Your task to perform on an android device: turn on showing notifications on the lock screen Image 0: 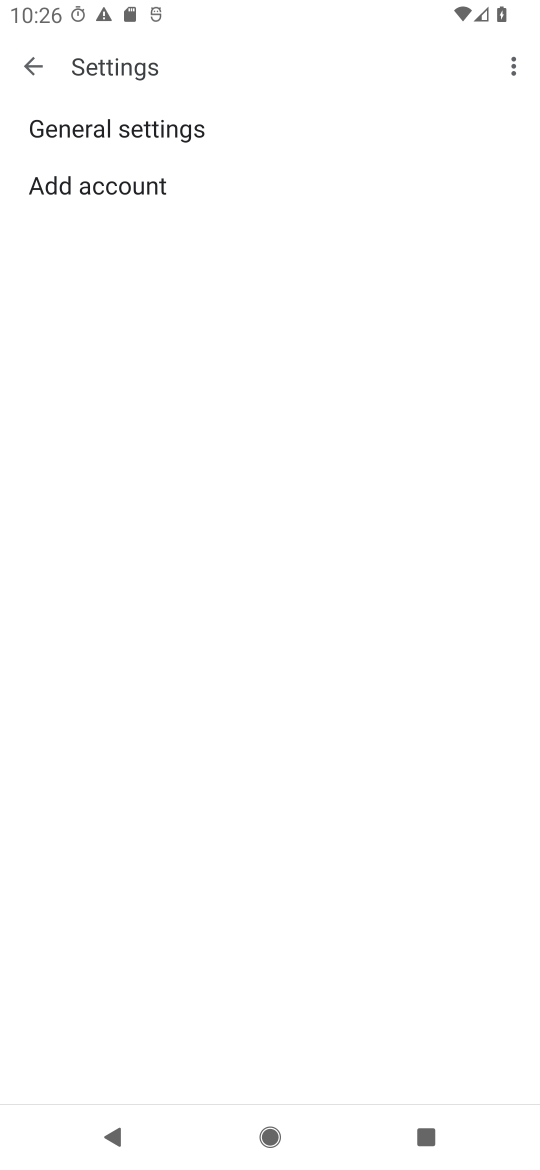
Step 0: press home button
Your task to perform on an android device: turn on showing notifications on the lock screen Image 1: 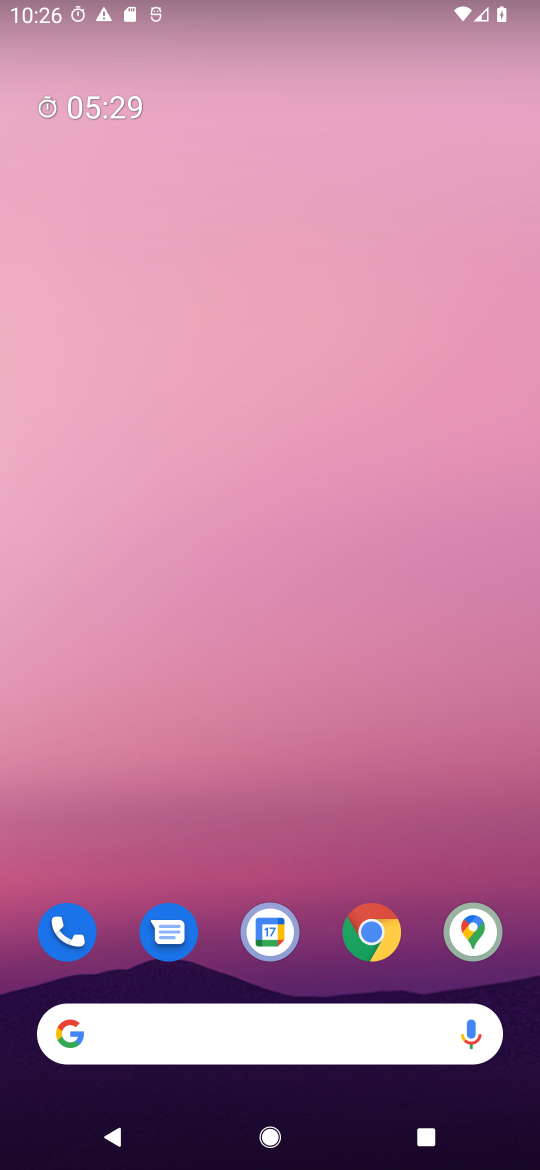
Step 1: drag from (295, 802) to (295, 94)
Your task to perform on an android device: turn on showing notifications on the lock screen Image 2: 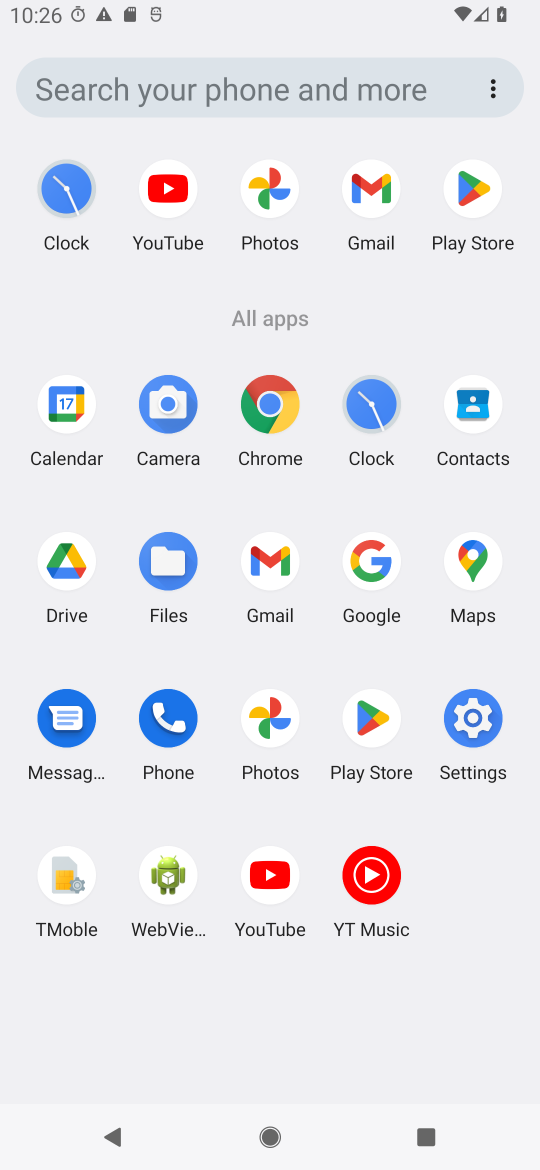
Step 2: click (469, 717)
Your task to perform on an android device: turn on showing notifications on the lock screen Image 3: 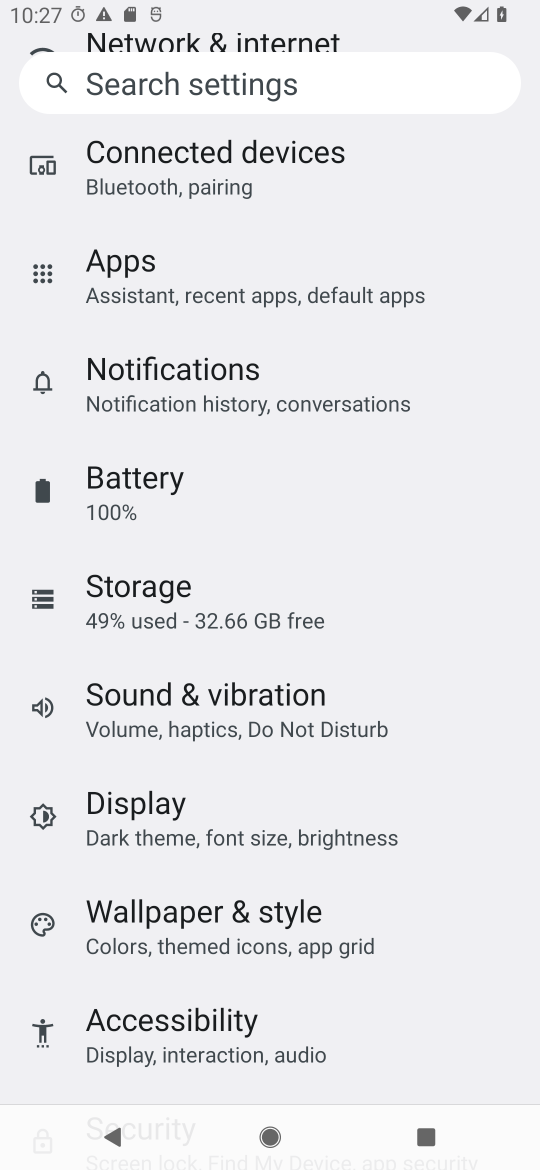
Step 3: drag from (238, 405) to (306, 893)
Your task to perform on an android device: turn on showing notifications on the lock screen Image 4: 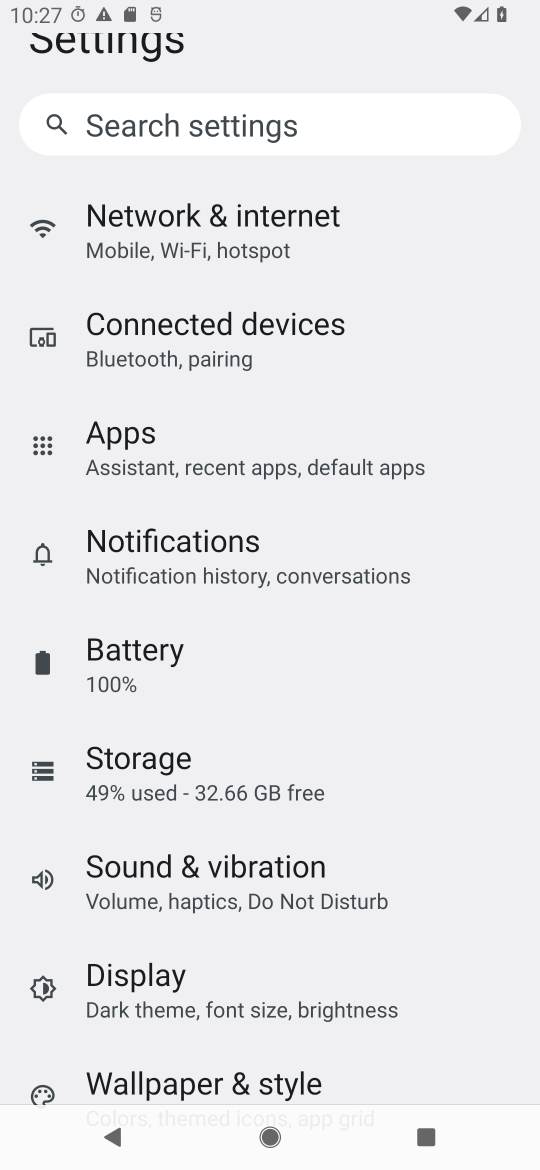
Step 4: click (331, 555)
Your task to perform on an android device: turn on showing notifications on the lock screen Image 5: 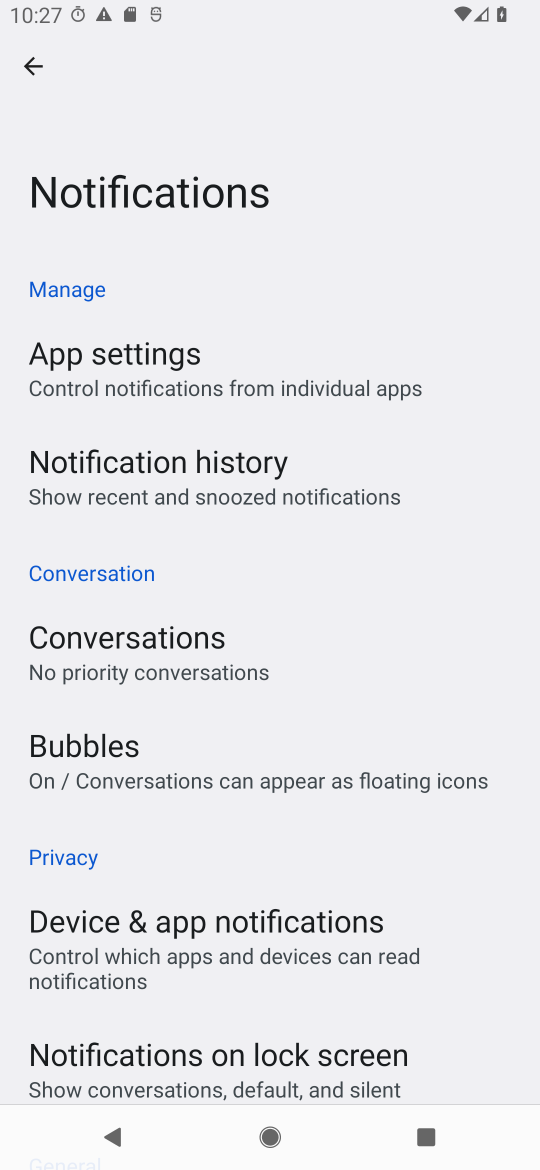
Step 5: drag from (238, 1018) to (249, 414)
Your task to perform on an android device: turn on showing notifications on the lock screen Image 6: 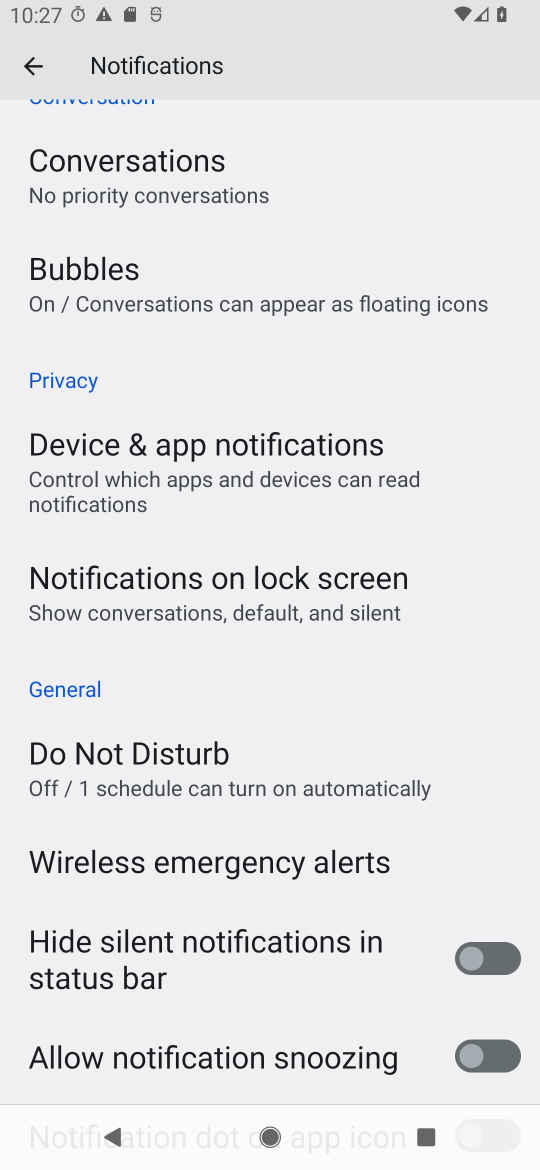
Step 6: click (269, 590)
Your task to perform on an android device: turn on showing notifications on the lock screen Image 7: 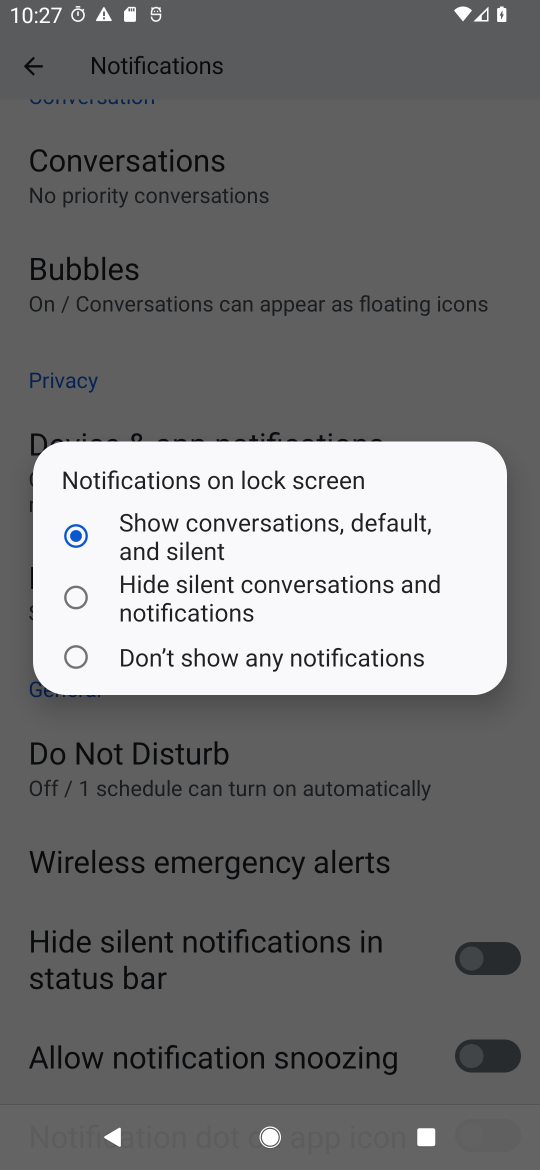
Step 7: task complete